Your task to perform on an android device: Open Google Maps and go to "Timeline" Image 0: 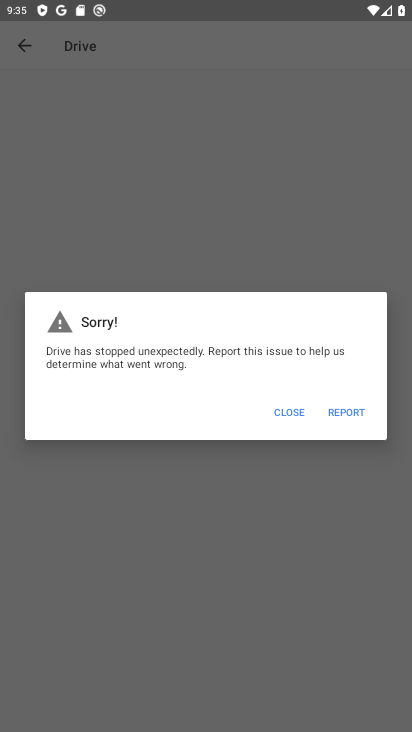
Step 0: press home button
Your task to perform on an android device: Open Google Maps and go to "Timeline" Image 1: 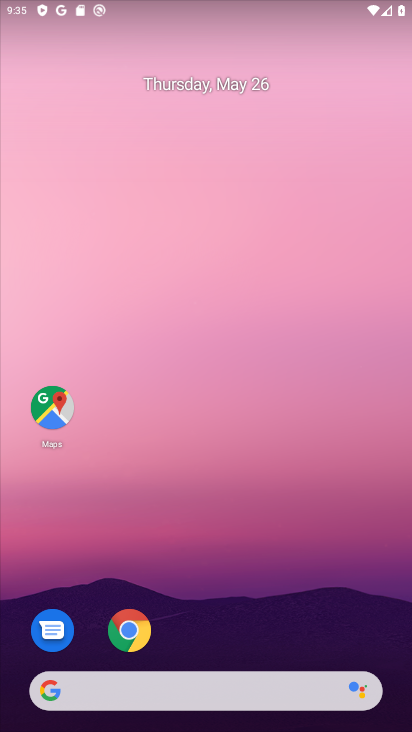
Step 1: click (45, 412)
Your task to perform on an android device: Open Google Maps and go to "Timeline" Image 2: 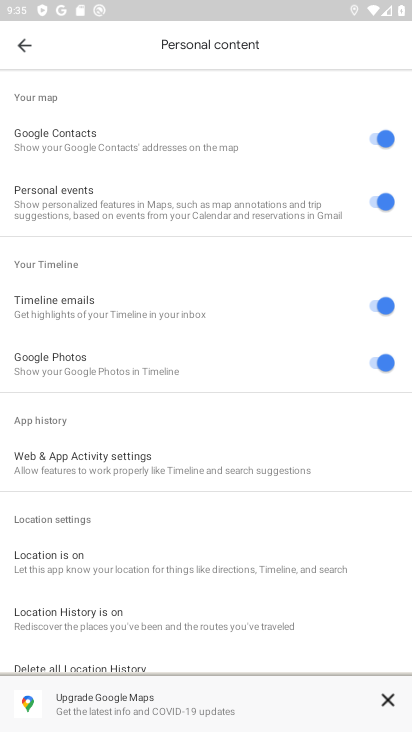
Step 2: click (23, 57)
Your task to perform on an android device: Open Google Maps and go to "Timeline" Image 3: 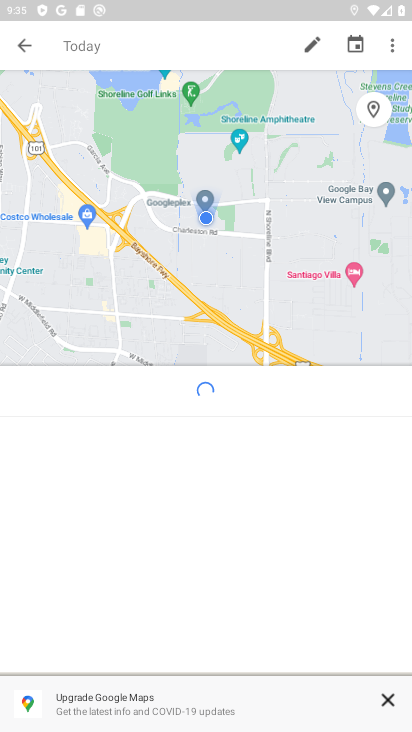
Step 3: click (23, 57)
Your task to perform on an android device: Open Google Maps and go to "Timeline" Image 4: 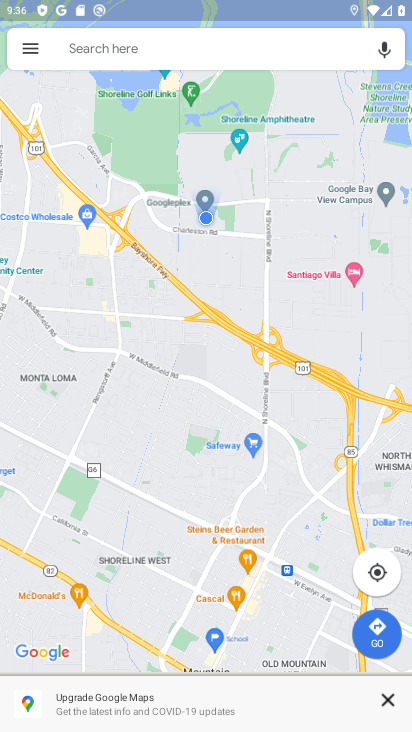
Step 4: click (23, 57)
Your task to perform on an android device: Open Google Maps and go to "Timeline" Image 5: 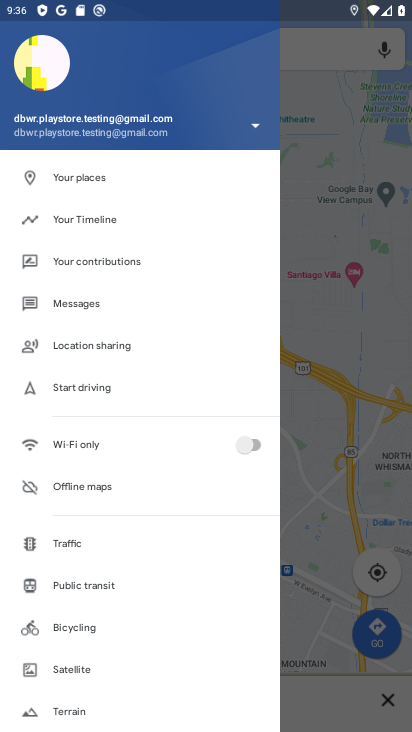
Step 5: click (107, 227)
Your task to perform on an android device: Open Google Maps and go to "Timeline" Image 6: 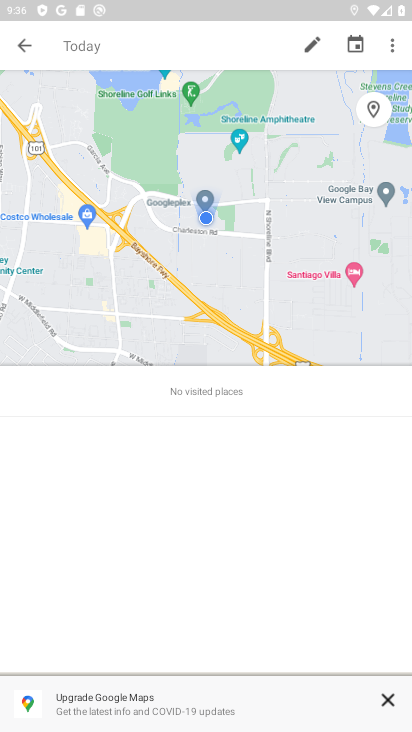
Step 6: task complete